Your task to perform on an android device: check data usage Image 0: 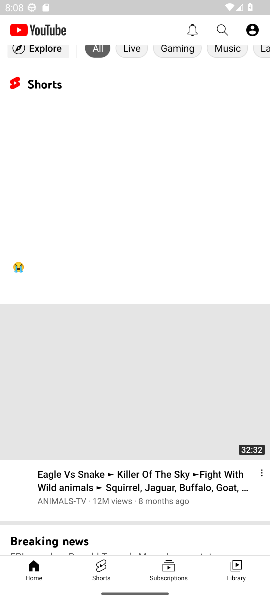
Step 0: press home button
Your task to perform on an android device: check data usage Image 1: 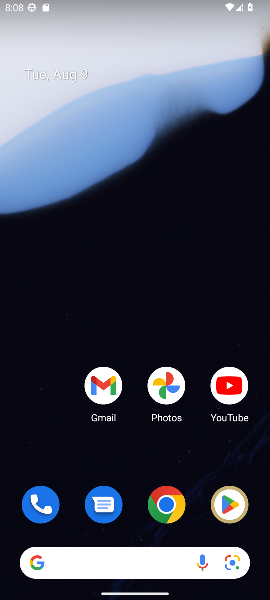
Step 1: drag from (137, 453) to (140, 127)
Your task to perform on an android device: check data usage Image 2: 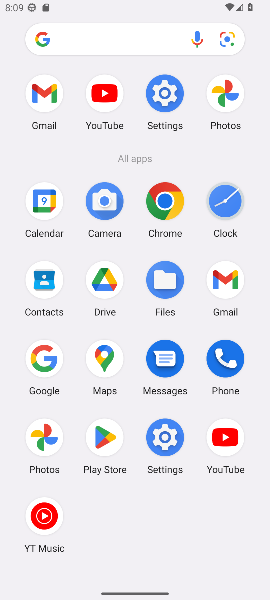
Step 2: click (162, 96)
Your task to perform on an android device: check data usage Image 3: 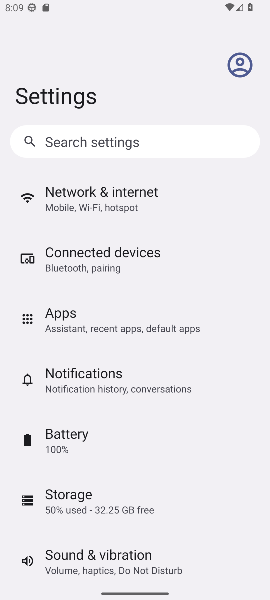
Step 3: click (84, 193)
Your task to perform on an android device: check data usage Image 4: 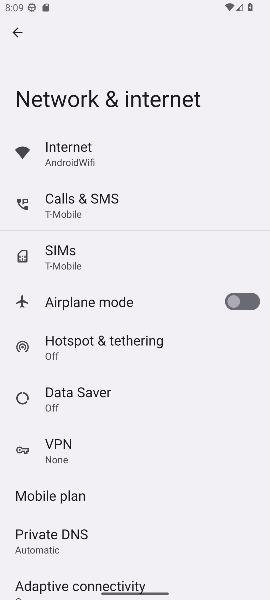
Step 4: click (60, 146)
Your task to perform on an android device: check data usage Image 5: 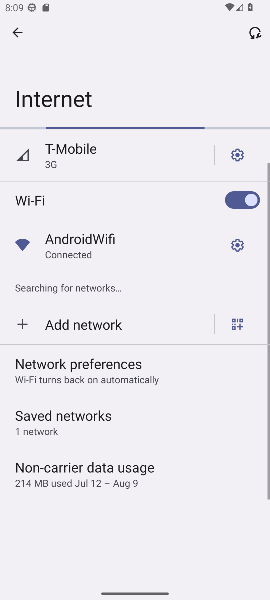
Step 5: click (89, 468)
Your task to perform on an android device: check data usage Image 6: 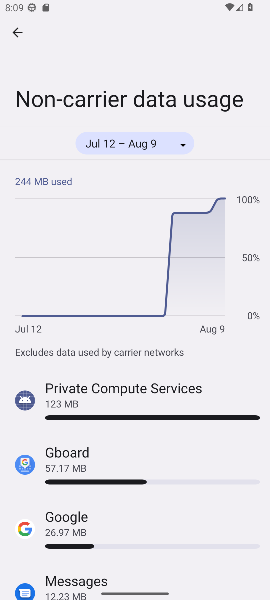
Step 6: task complete